Your task to perform on an android device: search for starred emails in the gmail app Image 0: 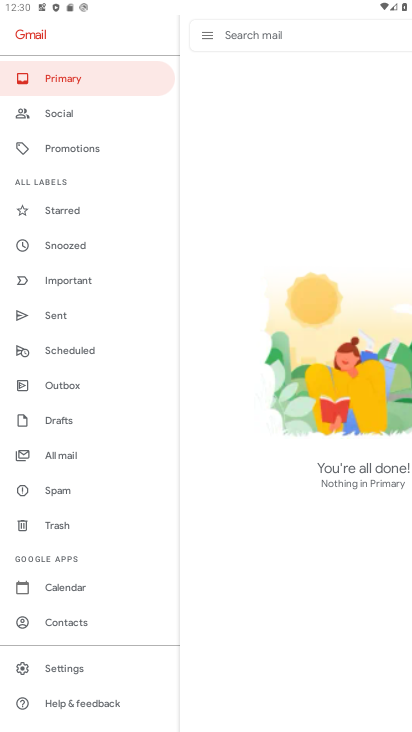
Step 0: click (63, 204)
Your task to perform on an android device: search for starred emails in the gmail app Image 1: 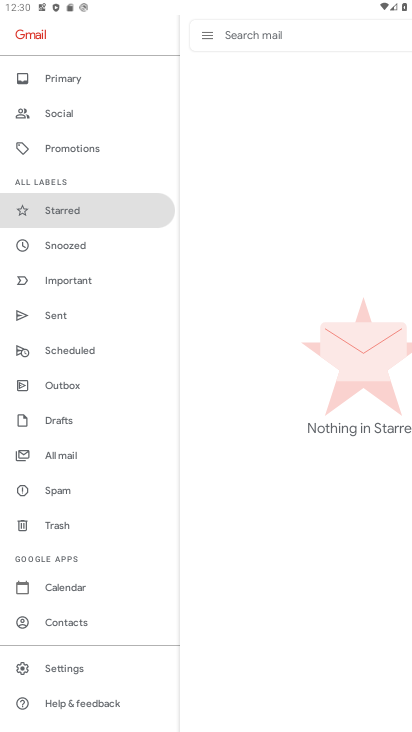
Step 1: click (54, 204)
Your task to perform on an android device: search for starred emails in the gmail app Image 2: 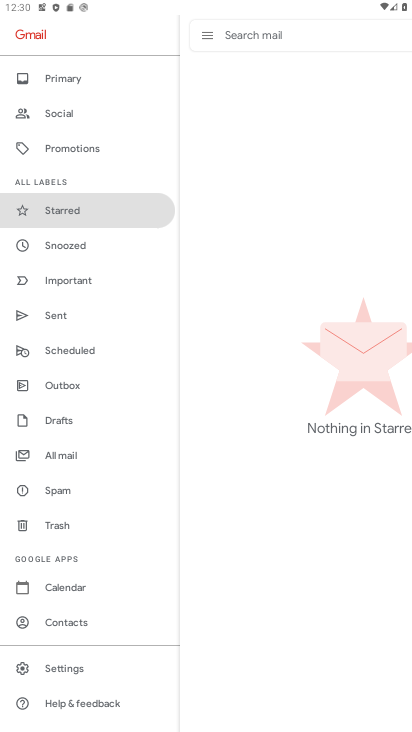
Step 2: task complete